Your task to perform on an android device: manage bookmarks in the chrome app Image 0: 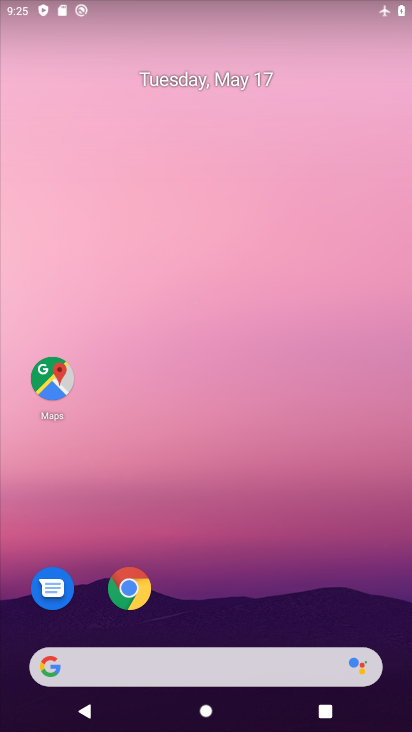
Step 0: click (126, 589)
Your task to perform on an android device: manage bookmarks in the chrome app Image 1: 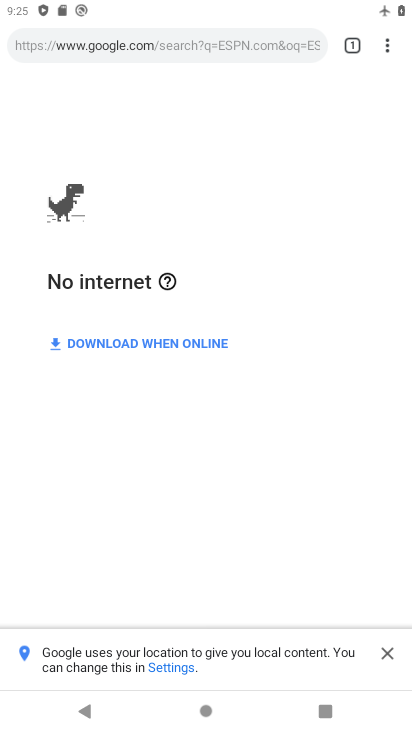
Step 1: click (388, 52)
Your task to perform on an android device: manage bookmarks in the chrome app Image 2: 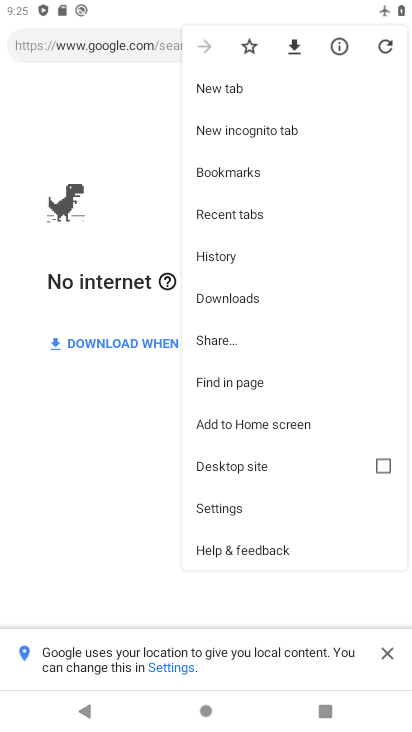
Step 2: click (256, 170)
Your task to perform on an android device: manage bookmarks in the chrome app Image 3: 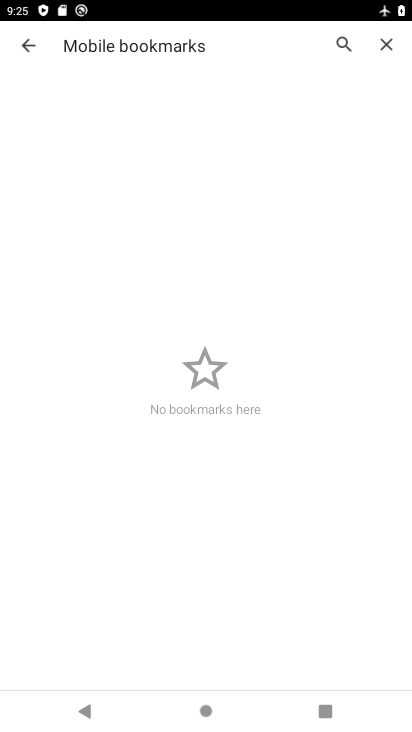
Step 3: task complete